Your task to perform on an android device: check storage Image 0: 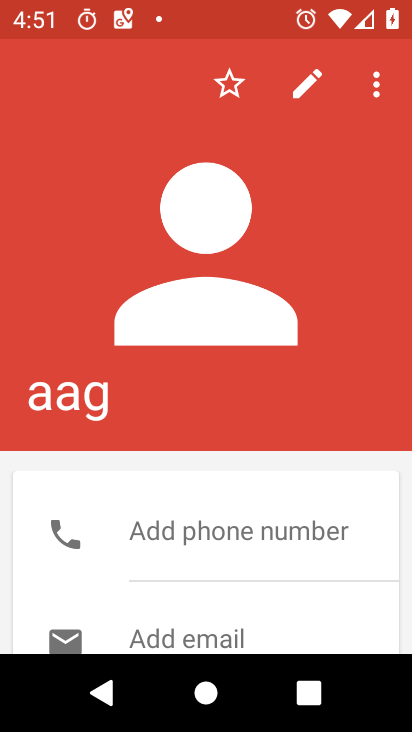
Step 0: press home button
Your task to perform on an android device: check storage Image 1: 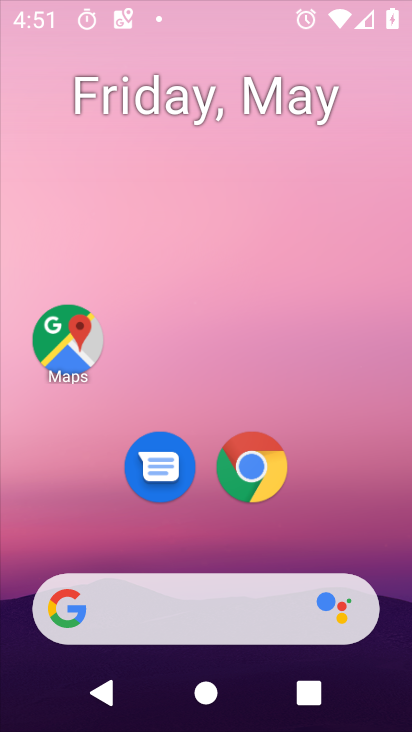
Step 1: drag from (255, 496) to (223, 105)
Your task to perform on an android device: check storage Image 2: 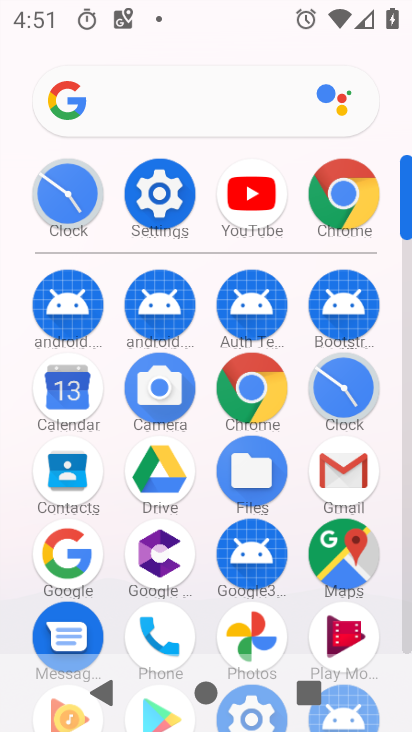
Step 2: click (175, 200)
Your task to perform on an android device: check storage Image 3: 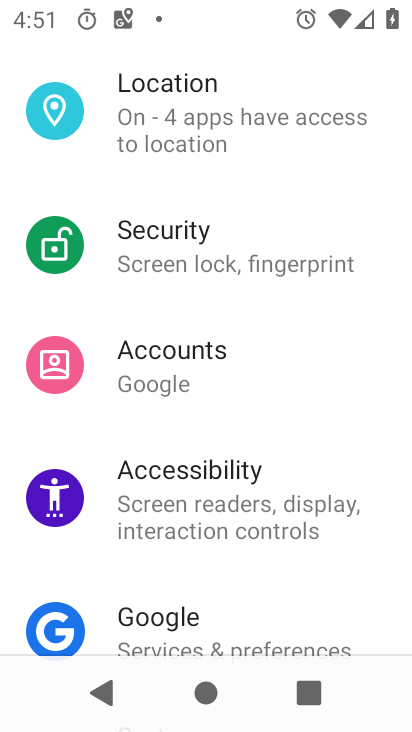
Step 3: drag from (198, 208) to (276, 657)
Your task to perform on an android device: check storage Image 4: 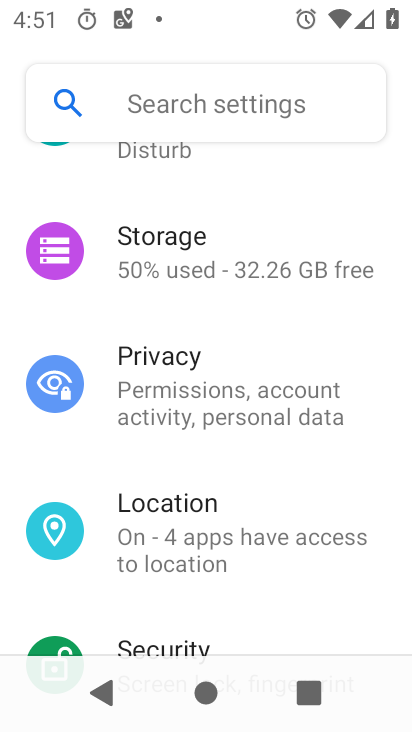
Step 4: click (200, 251)
Your task to perform on an android device: check storage Image 5: 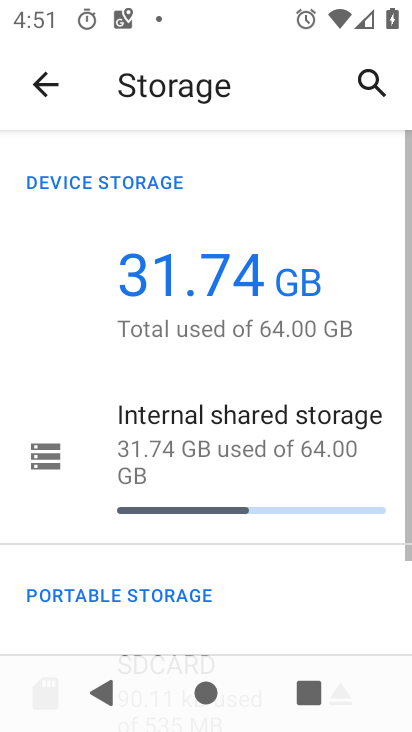
Step 5: task complete